Your task to perform on an android device: Toggle the flashlight Image 0: 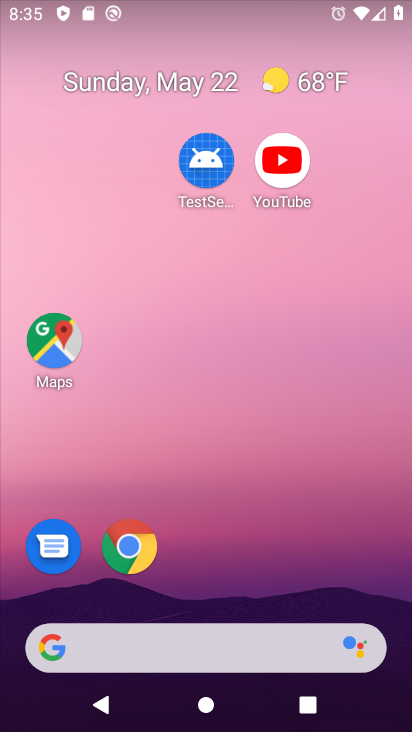
Step 0: drag from (262, 674) to (110, 222)
Your task to perform on an android device: Toggle the flashlight Image 1: 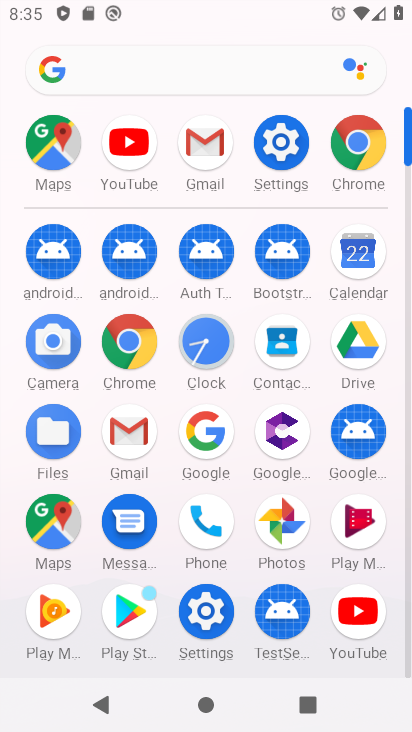
Step 1: task complete